Your task to perform on an android device: change the clock style Image 0: 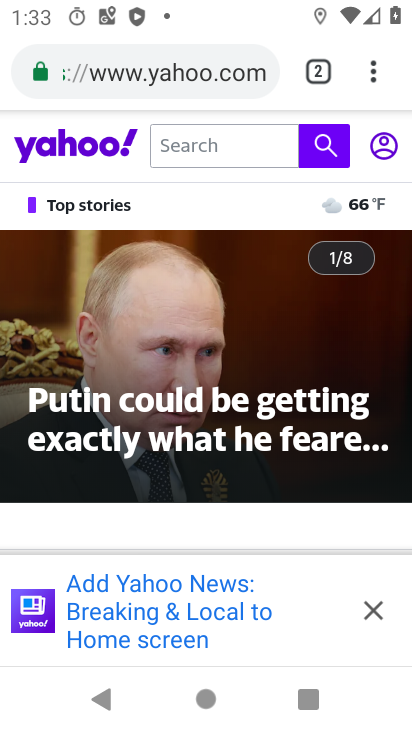
Step 0: press home button
Your task to perform on an android device: change the clock style Image 1: 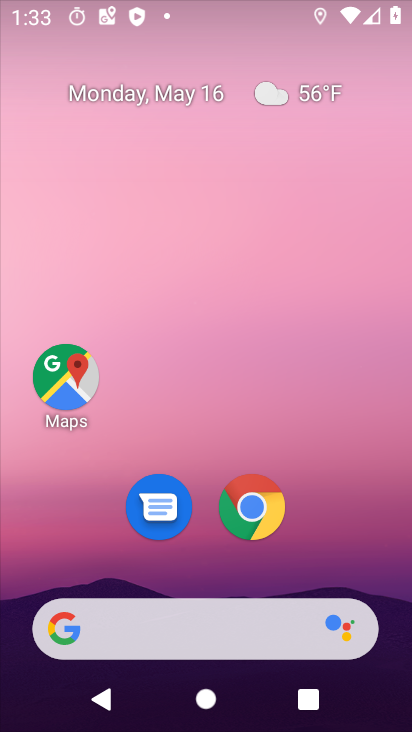
Step 1: drag from (219, 395) to (230, 88)
Your task to perform on an android device: change the clock style Image 2: 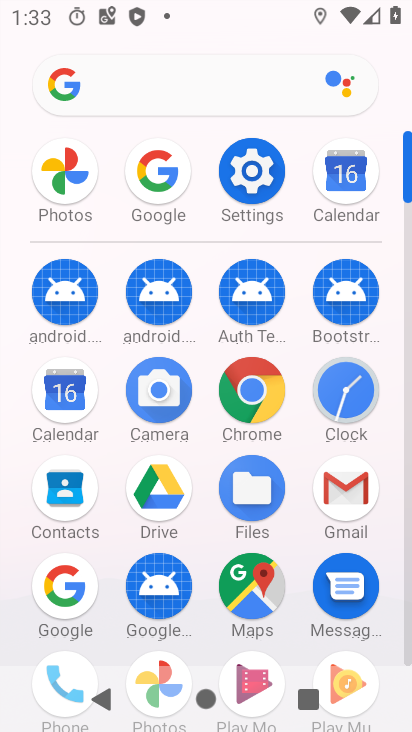
Step 2: click (346, 407)
Your task to perform on an android device: change the clock style Image 3: 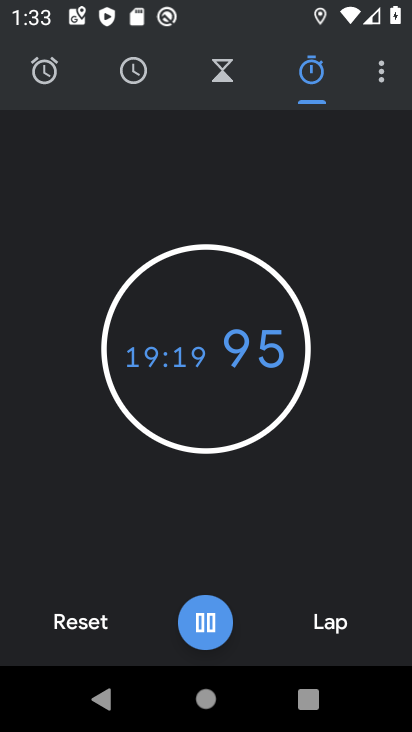
Step 3: click (371, 63)
Your task to perform on an android device: change the clock style Image 4: 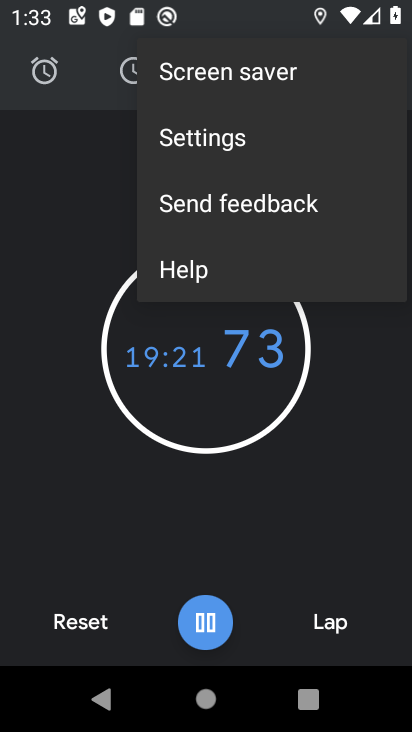
Step 4: click (232, 143)
Your task to perform on an android device: change the clock style Image 5: 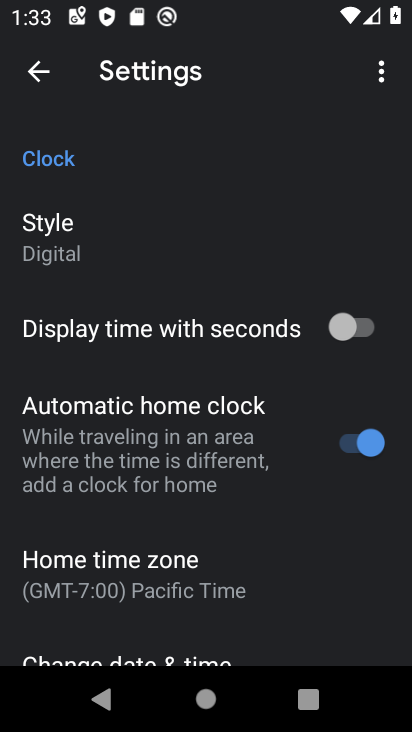
Step 5: click (98, 232)
Your task to perform on an android device: change the clock style Image 6: 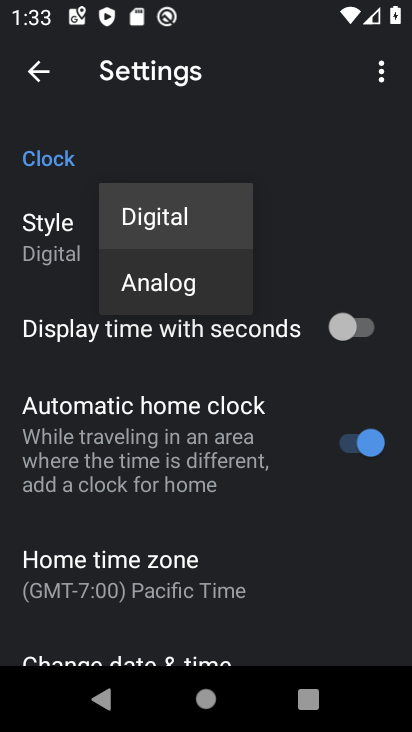
Step 6: click (166, 284)
Your task to perform on an android device: change the clock style Image 7: 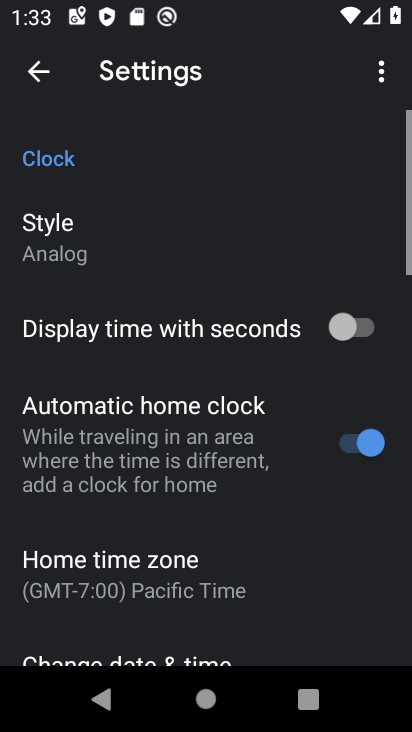
Step 7: task complete